Your task to perform on an android device: delete location history Image 0: 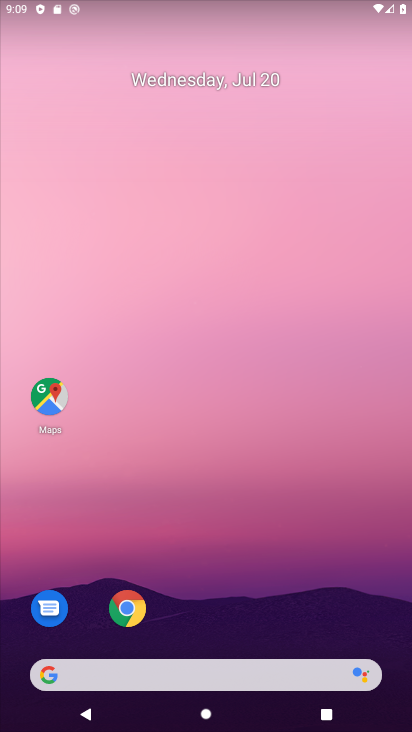
Step 0: click (45, 393)
Your task to perform on an android device: delete location history Image 1: 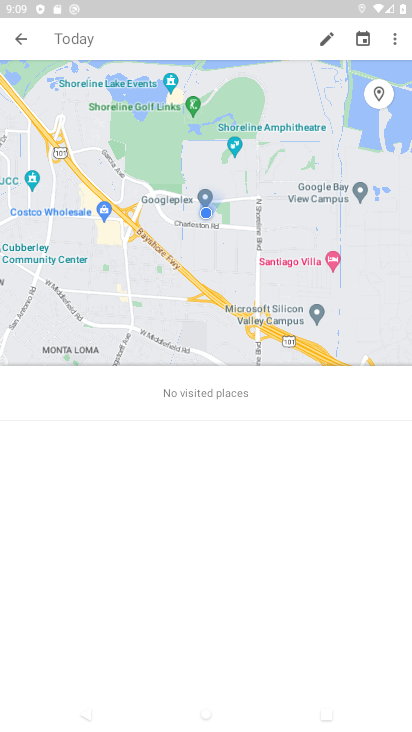
Step 1: click (395, 39)
Your task to perform on an android device: delete location history Image 2: 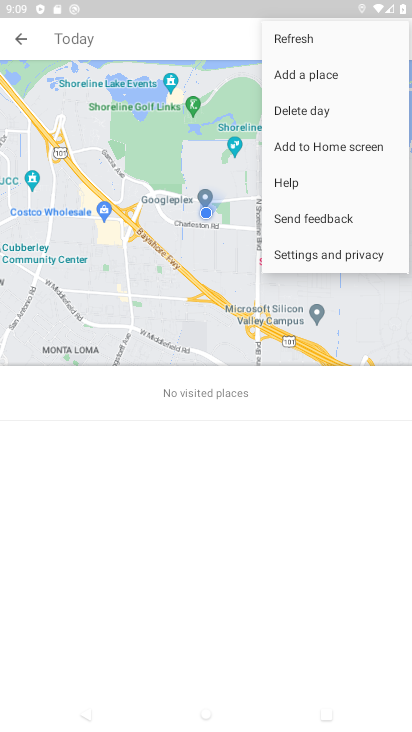
Step 2: click (354, 257)
Your task to perform on an android device: delete location history Image 3: 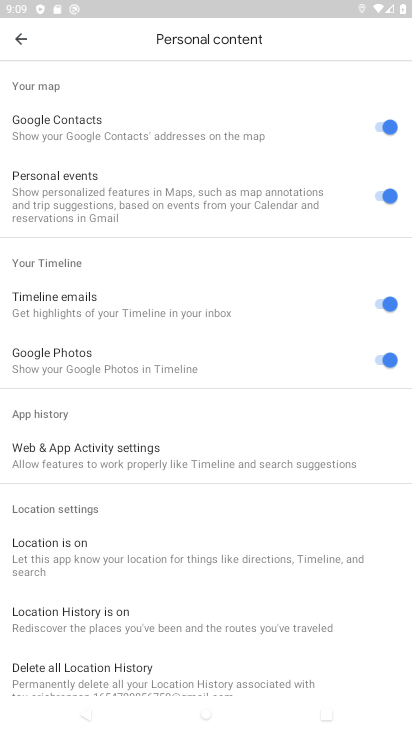
Step 3: drag from (259, 649) to (227, 360)
Your task to perform on an android device: delete location history Image 4: 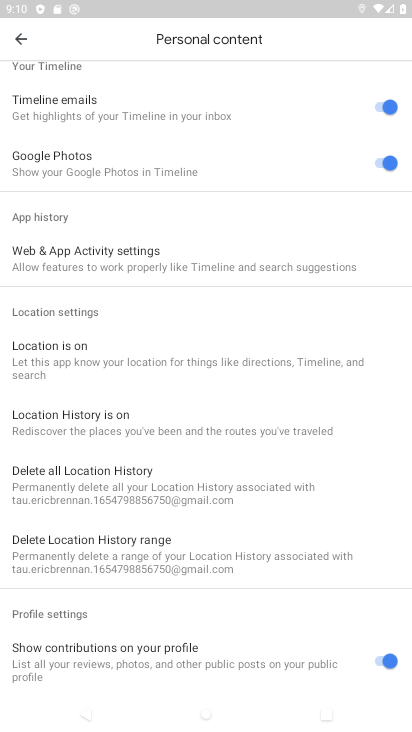
Step 4: click (161, 496)
Your task to perform on an android device: delete location history Image 5: 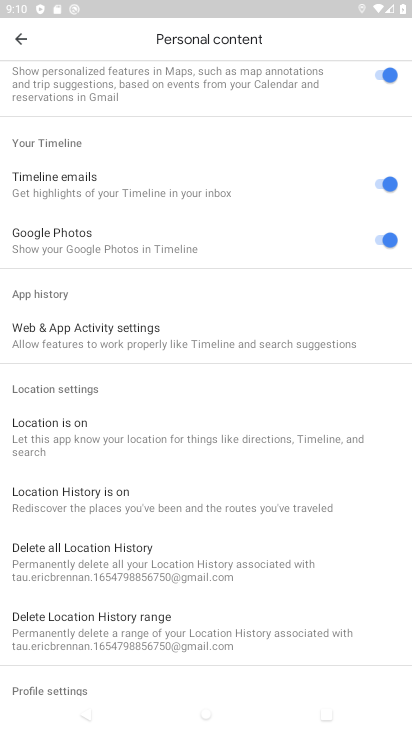
Step 5: click (144, 561)
Your task to perform on an android device: delete location history Image 6: 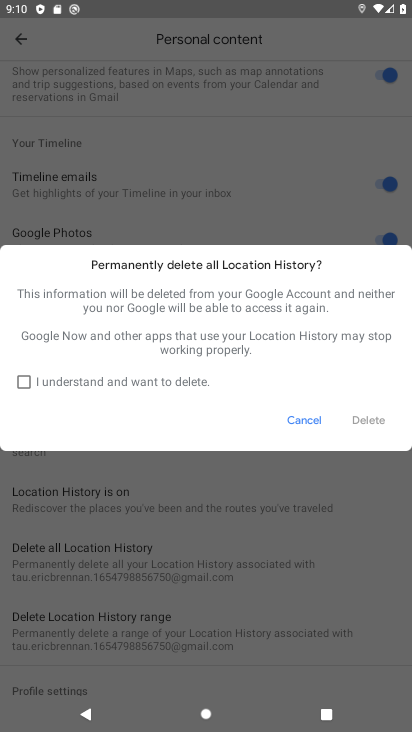
Step 6: click (187, 383)
Your task to perform on an android device: delete location history Image 7: 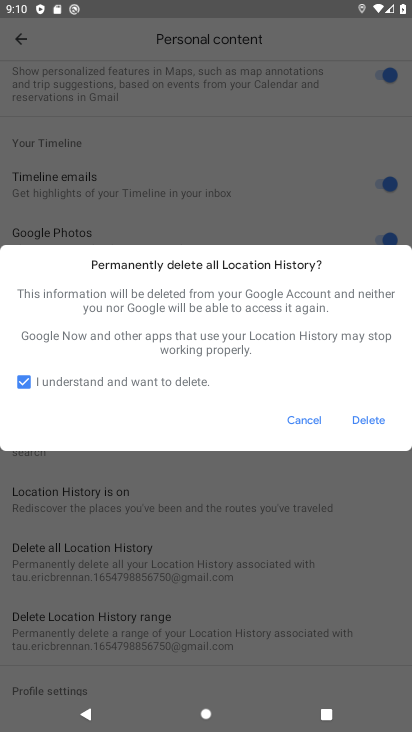
Step 7: click (370, 437)
Your task to perform on an android device: delete location history Image 8: 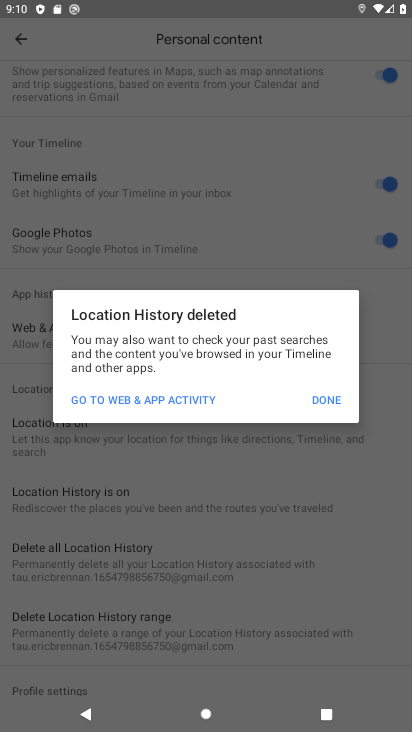
Step 8: click (328, 399)
Your task to perform on an android device: delete location history Image 9: 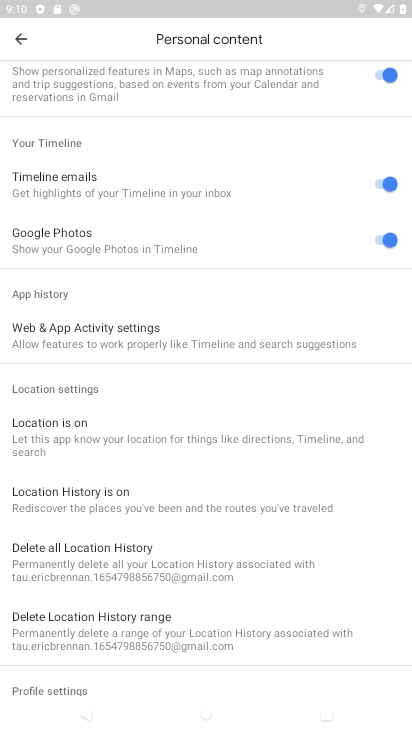
Step 9: task complete